Your task to perform on an android device: What is the news today? Image 0: 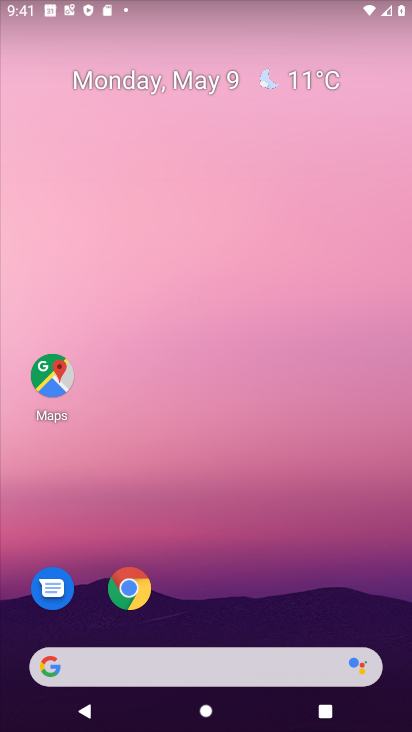
Step 0: click (54, 665)
Your task to perform on an android device: What is the news today? Image 1: 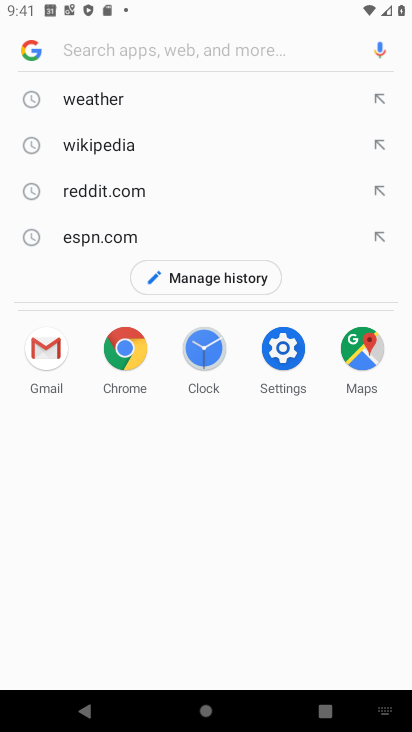
Step 1: type "news today"
Your task to perform on an android device: What is the news today? Image 2: 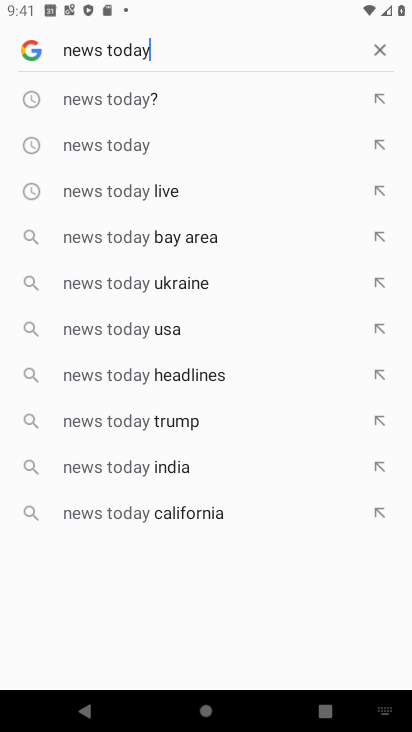
Step 2: click (131, 101)
Your task to perform on an android device: What is the news today? Image 3: 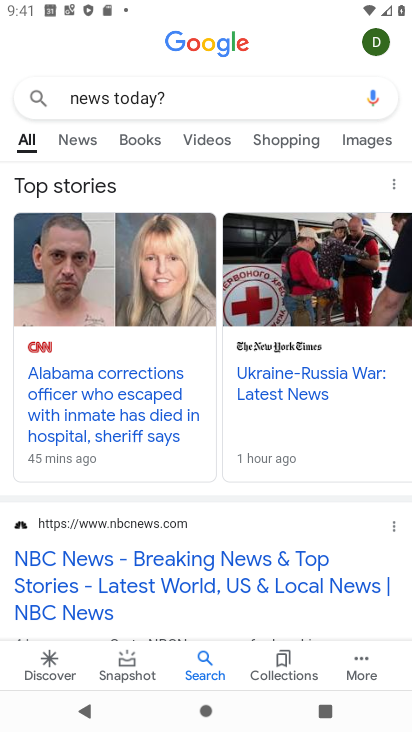
Step 3: drag from (188, 570) to (317, 349)
Your task to perform on an android device: What is the news today? Image 4: 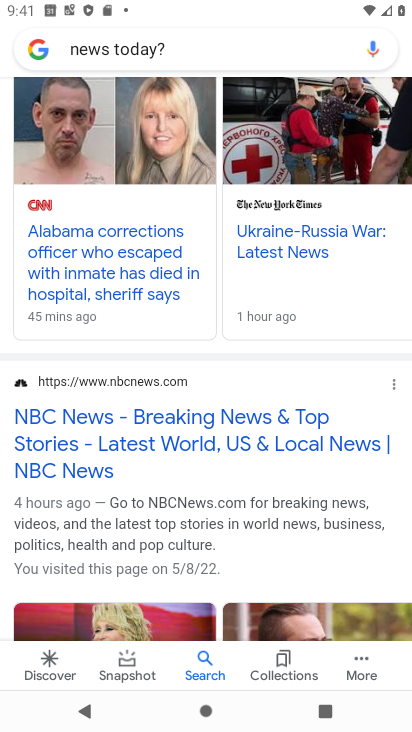
Step 4: drag from (226, 252) to (150, 510)
Your task to perform on an android device: What is the news today? Image 5: 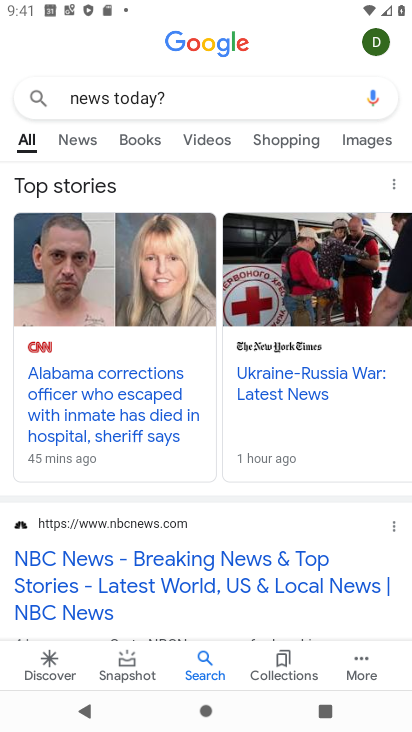
Step 5: click (83, 142)
Your task to perform on an android device: What is the news today? Image 6: 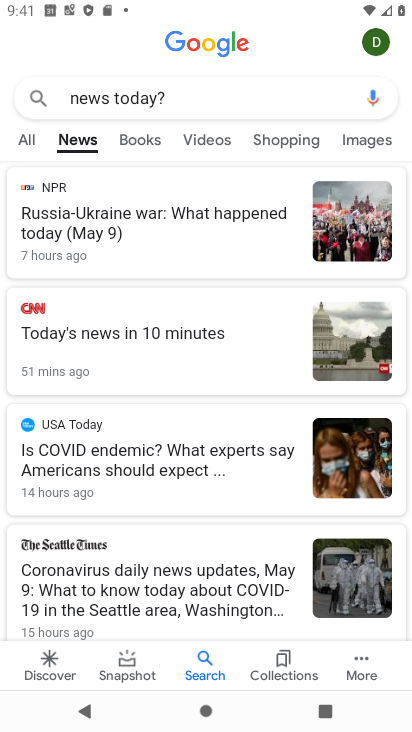
Step 6: task complete